Your task to perform on an android device: add a contact in the contacts app Image 0: 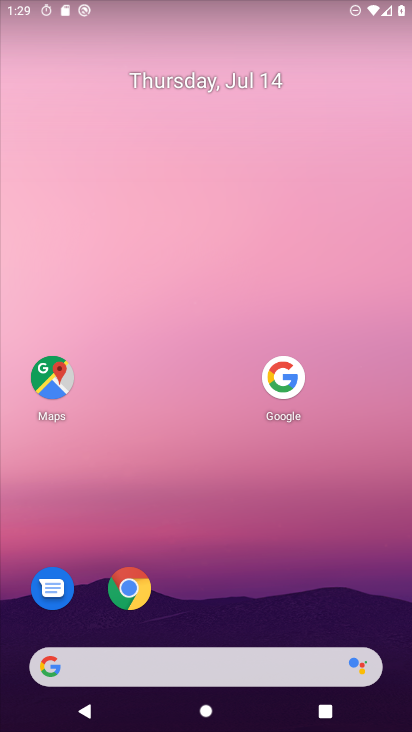
Step 0: drag from (200, 663) to (278, 135)
Your task to perform on an android device: add a contact in the contacts app Image 1: 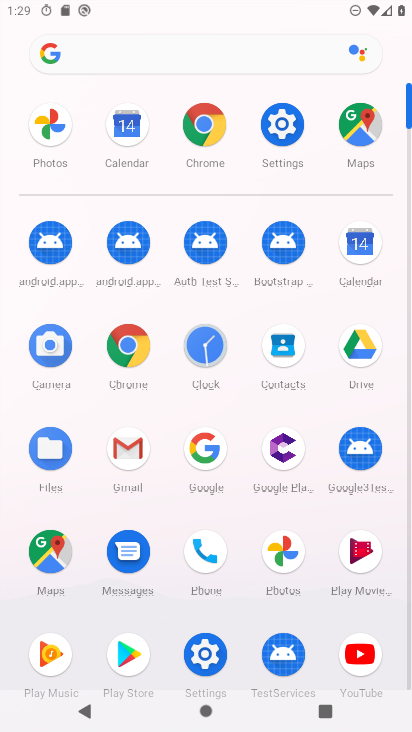
Step 1: click (281, 348)
Your task to perform on an android device: add a contact in the contacts app Image 2: 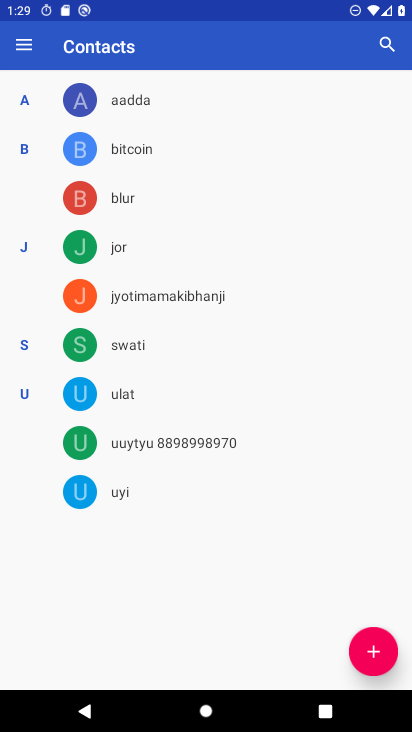
Step 2: click (370, 651)
Your task to perform on an android device: add a contact in the contacts app Image 3: 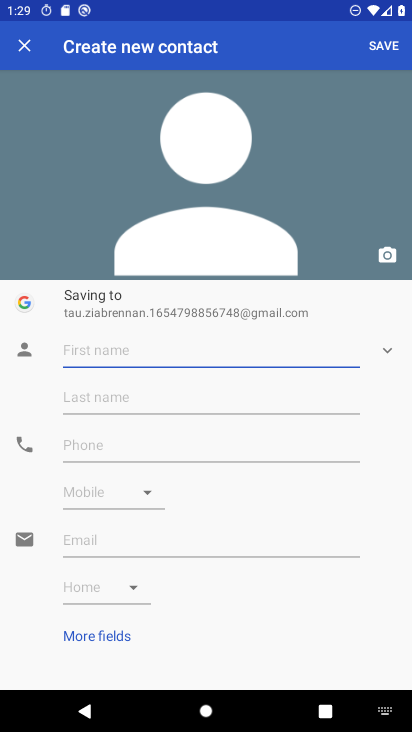
Step 3: type "nyyttuuuggfd"
Your task to perform on an android device: add a contact in the contacts app Image 4: 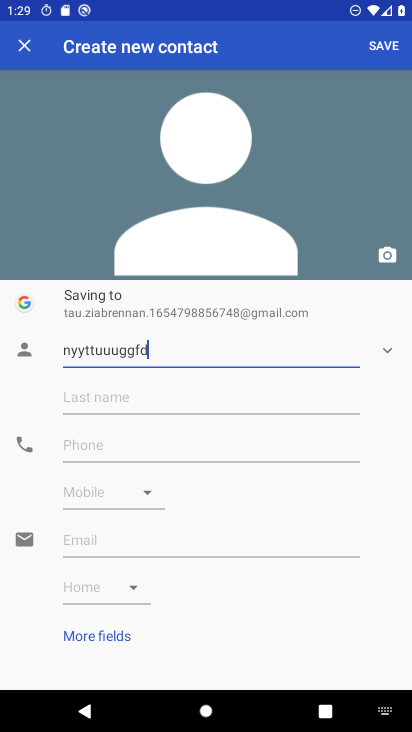
Step 4: click (83, 436)
Your task to perform on an android device: add a contact in the contacts app Image 5: 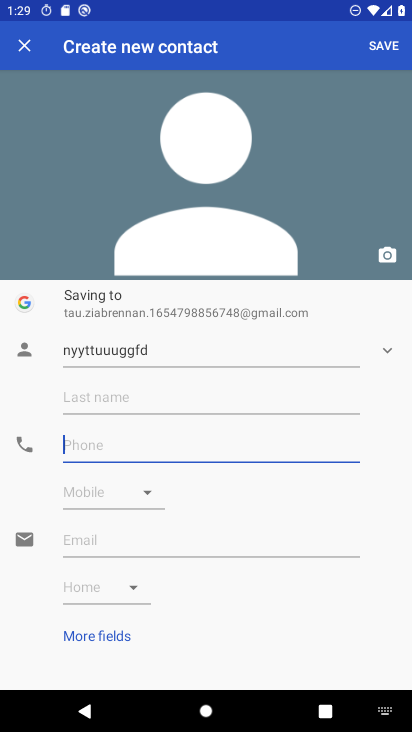
Step 5: type "176588766"
Your task to perform on an android device: add a contact in the contacts app Image 6: 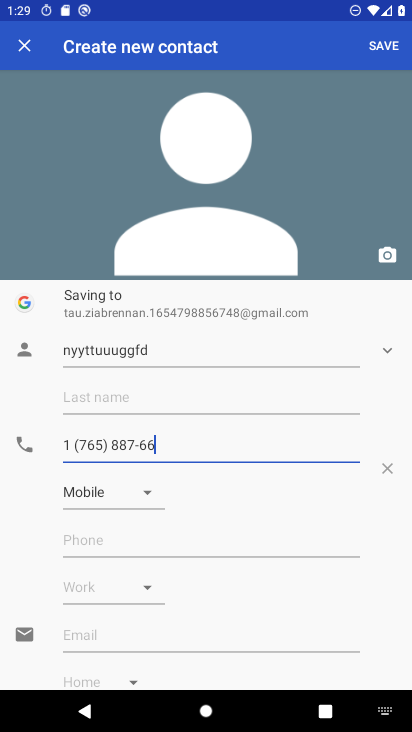
Step 6: click (394, 44)
Your task to perform on an android device: add a contact in the contacts app Image 7: 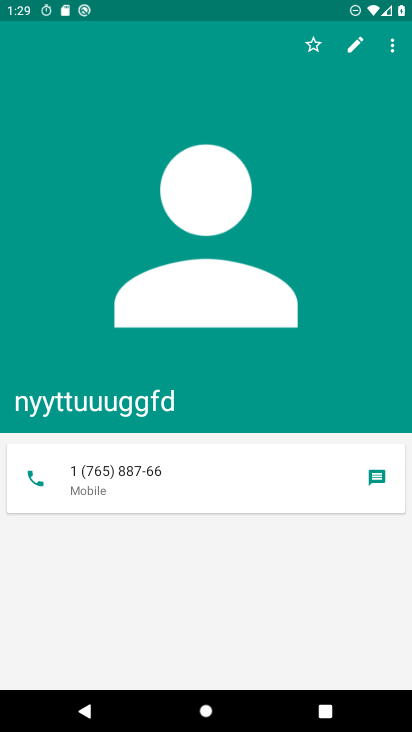
Step 7: task complete